Your task to perform on an android device: turn off priority inbox in the gmail app Image 0: 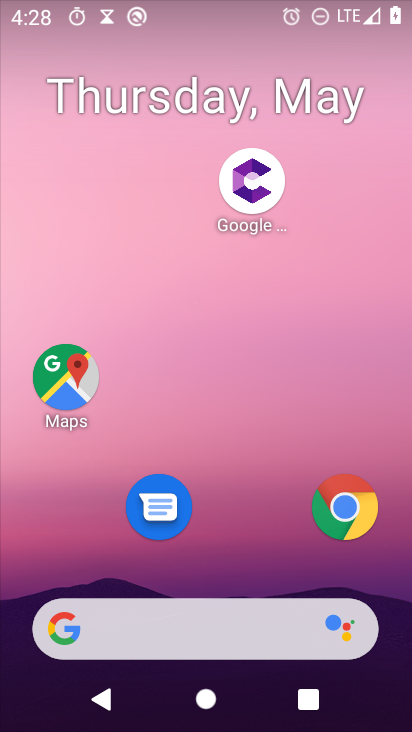
Step 0: drag from (210, 246) to (205, 112)
Your task to perform on an android device: turn off priority inbox in the gmail app Image 1: 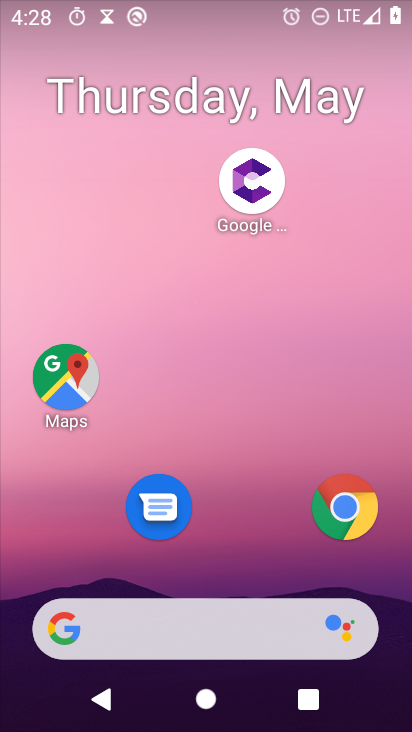
Step 1: drag from (225, 511) to (245, 23)
Your task to perform on an android device: turn off priority inbox in the gmail app Image 2: 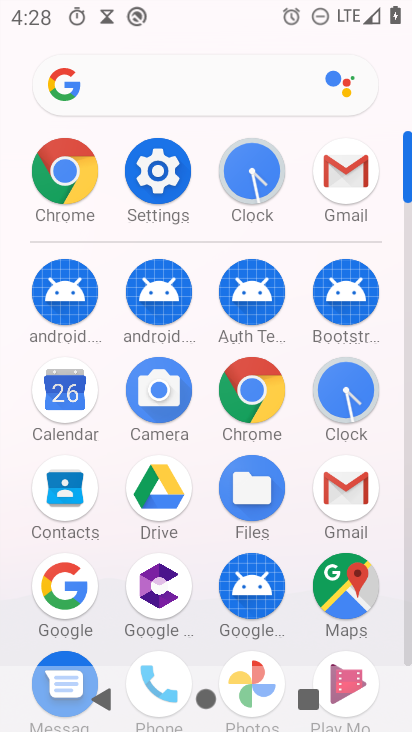
Step 2: click (339, 185)
Your task to perform on an android device: turn off priority inbox in the gmail app Image 3: 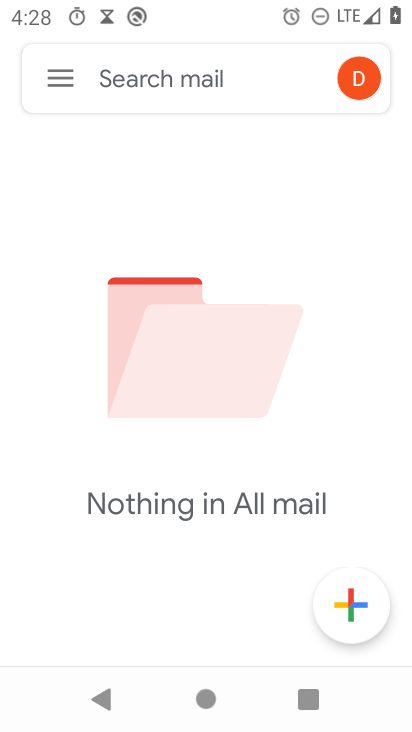
Step 3: click (48, 75)
Your task to perform on an android device: turn off priority inbox in the gmail app Image 4: 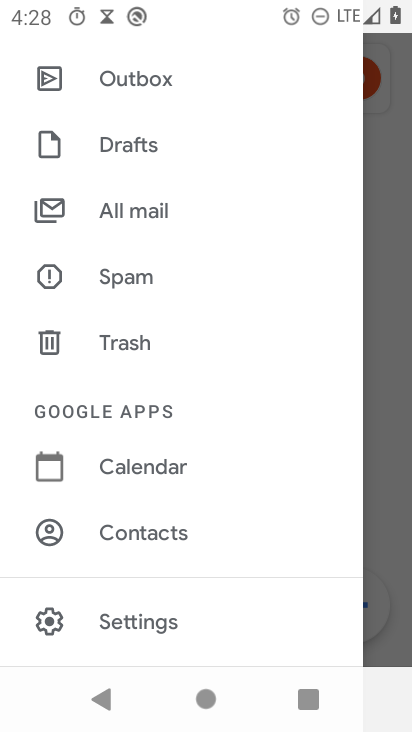
Step 4: click (137, 619)
Your task to perform on an android device: turn off priority inbox in the gmail app Image 5: 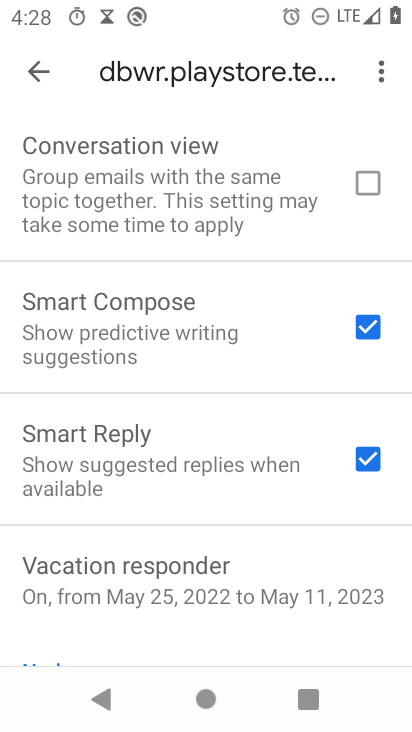
Step 5: drag from (191, 583) to (230, 180)
Your task to perform on an android device: turn off priority inbox in the gmail app Image 6: 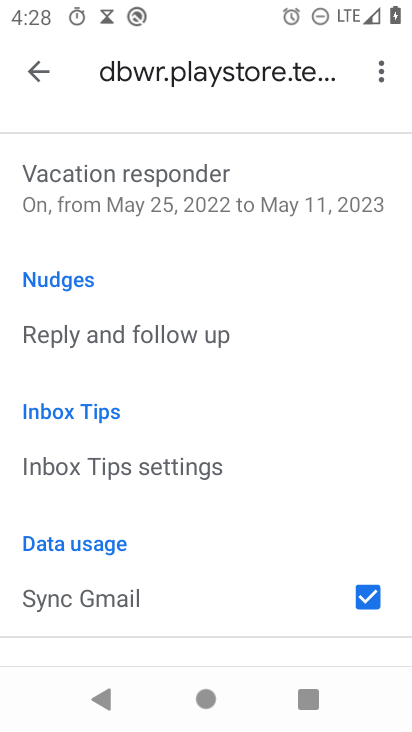
Step 6: drag from (199, 517) to (211, 108)
Your task to perform on an android device: turn off priority inbox in the gmail app Image 7: 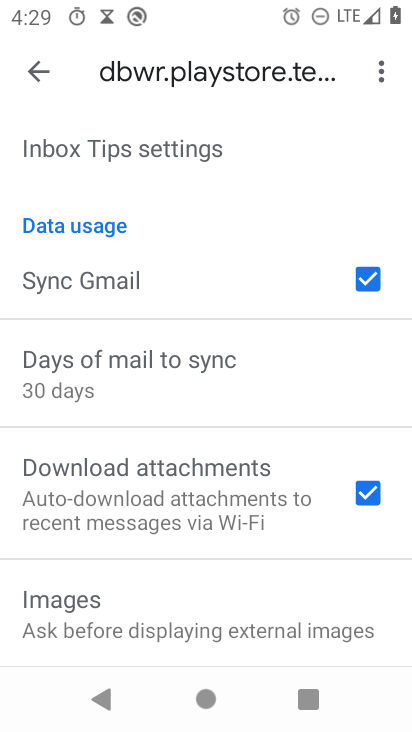
Step 7: drag from (292, 185) to (170, 724)
Your task to perform on an android device: turn off priority inbox in the gmail app Image 8: 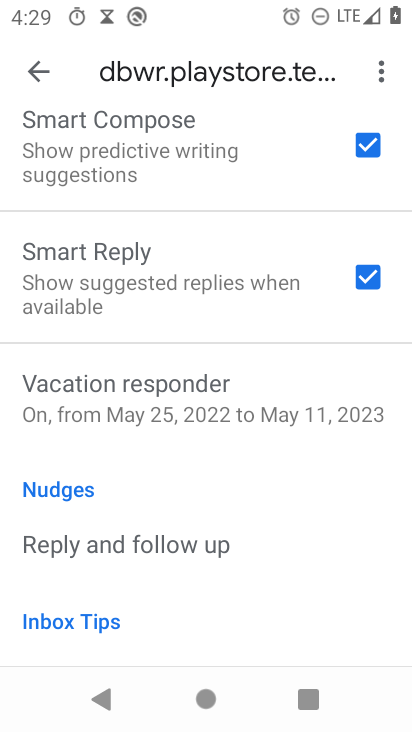
Step 8: drag from (222, 317) to (138, 711)
Your task to perform on an android device: turn off priority inbox in the gmail app Image 9: 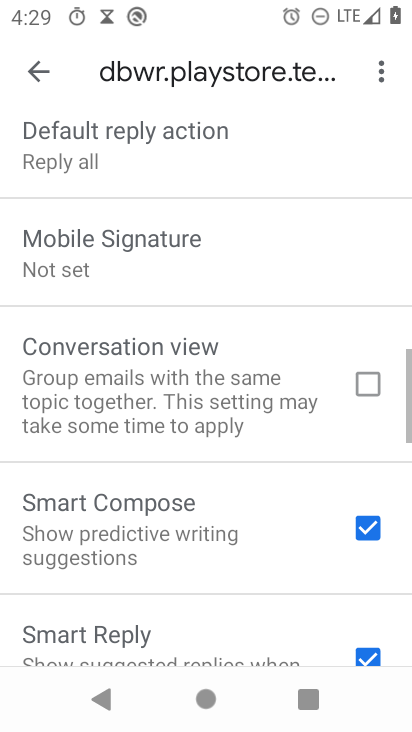
Step 9: drag from (252, 279) to (186, 722)
Your task to perform on an android device: turn off priority inbox in the gmail app Image 10: 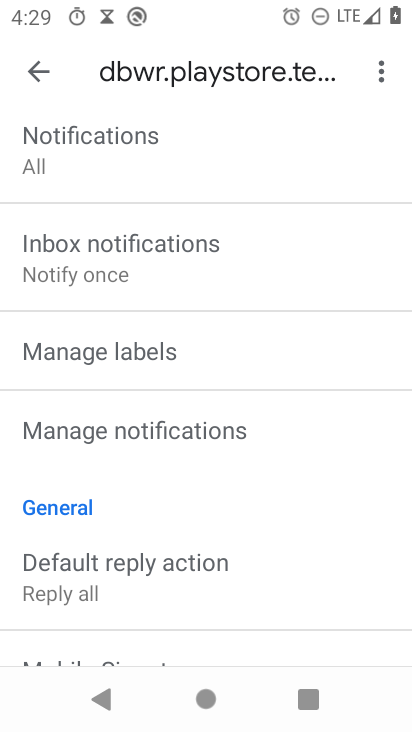
Step 10: drag from (177, 199) to (139, 622)
Your task to perform on an android device: turn off priority inbox in the gmail app Image 11: 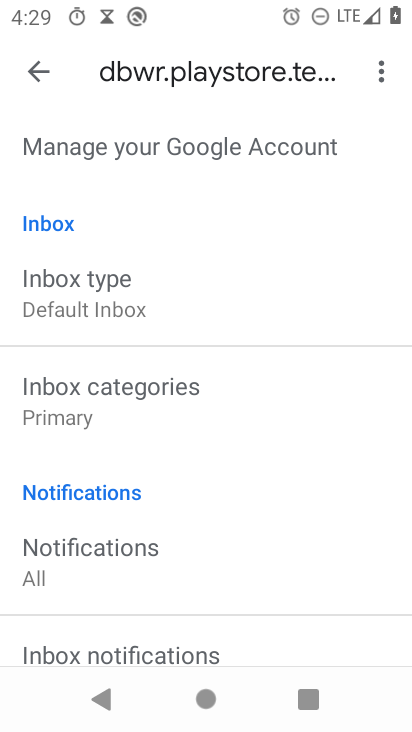
Step 11: click (92, 289)
Your task to perform on an android device: turn off priority inbox in the gmail app Image 12: 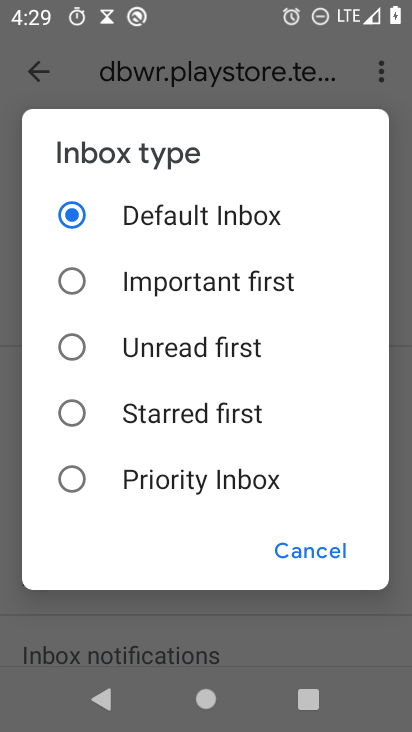
Step 12: task complete